Your task to perform on an android device: find which apps use the phone's location Image 0: 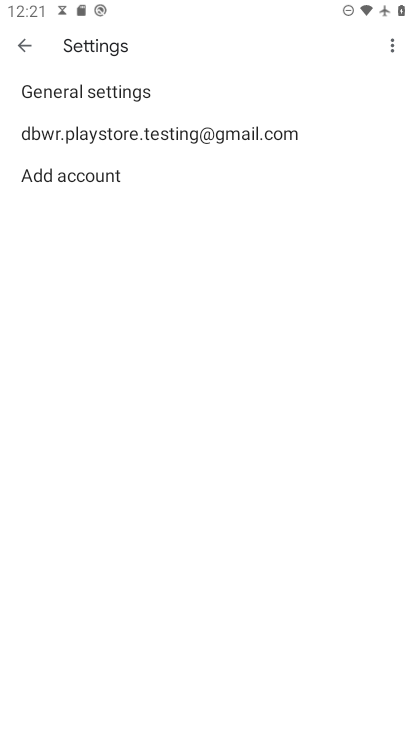
Step 0: click (20, 43)
Your task to perform on an android device: find which apps use the phone's location Image 1: 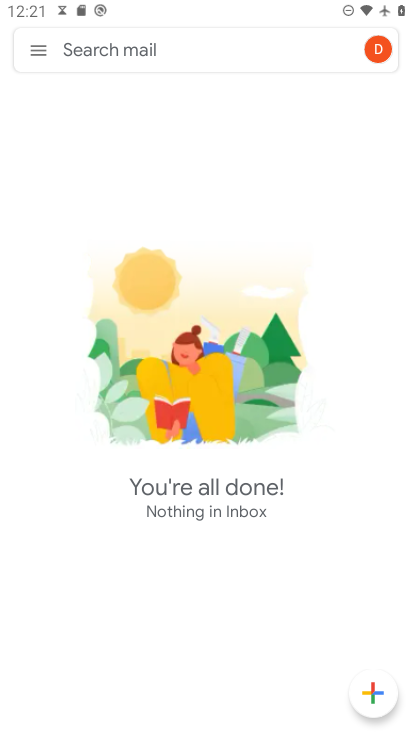
Step 1: press back button
Your task to perform on an android device: find which apps use the phone's location Image 2: 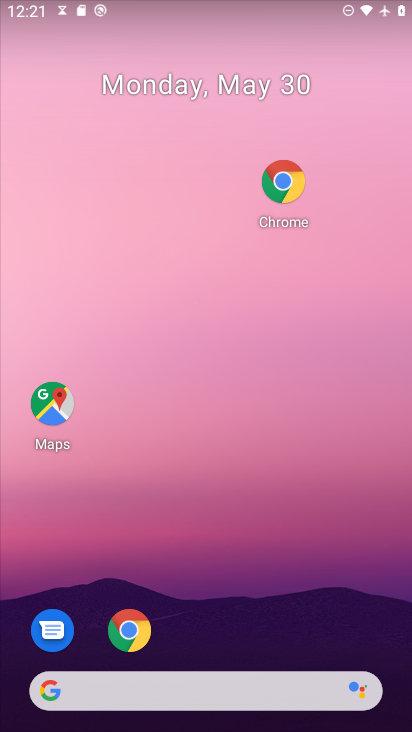
Step 2: drag from (243, 680) to (194, 229)
Your task to perform on an android device: find which apps use the phone's location Image 3: 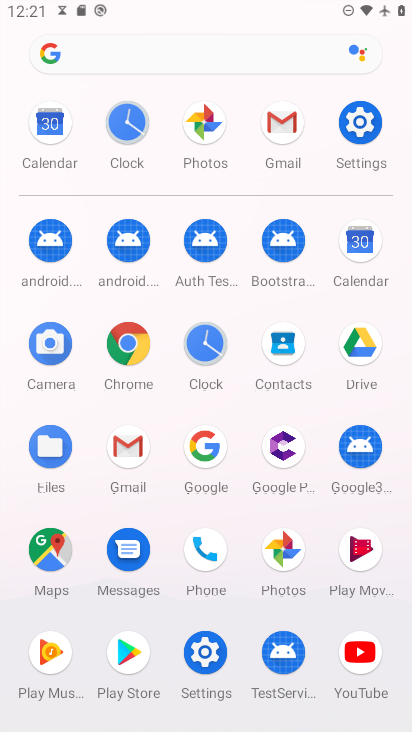
Step 3: click (203, 641)
Your task to perform on an android device: find which apps use the phone's location Image 4: 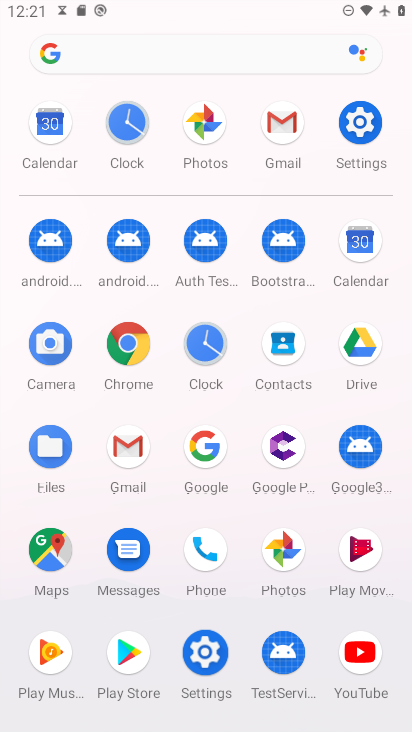
Step 4: click (205, 644)
Your task to perform on an android device: find which apps use the phone's location Image 5: 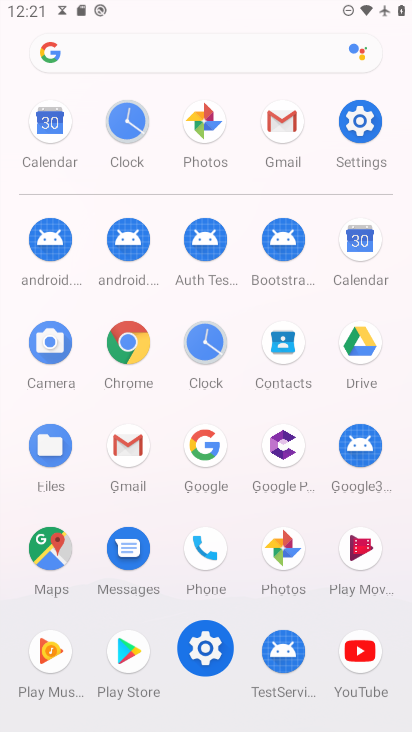
Step 5: click (208, 648)
Your task to perform on an android device: find which apps use the phone's location Image 6: 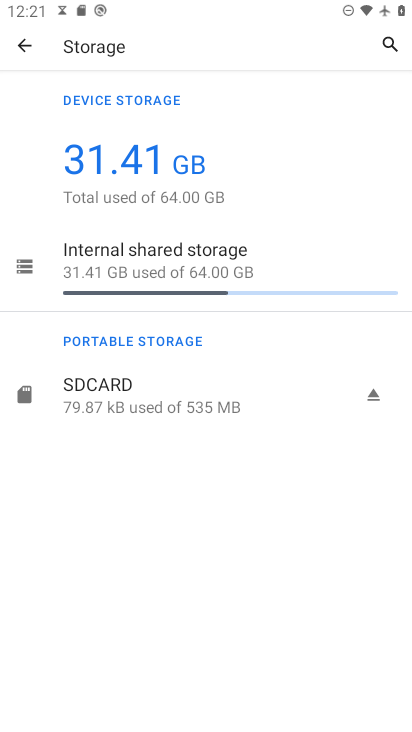
Step 6: click (28, 42)
Your task to perform on an android device: find which apps use the phone's location Image 7: 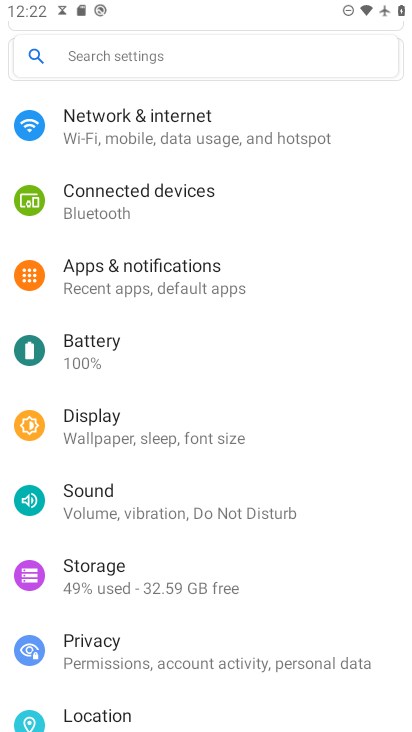
Step 7: drag from (161, 589) to (161, 254)
Your task to perform on an android device: find which apps use the phone's location Image 8: 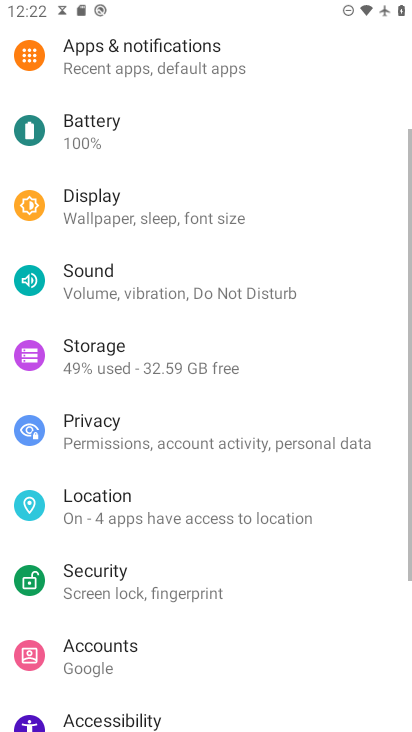
Step 8: drag from (233, 514) to (206, 242)
Your task to perform on an android device: find which apps use the phone's location Image 9: 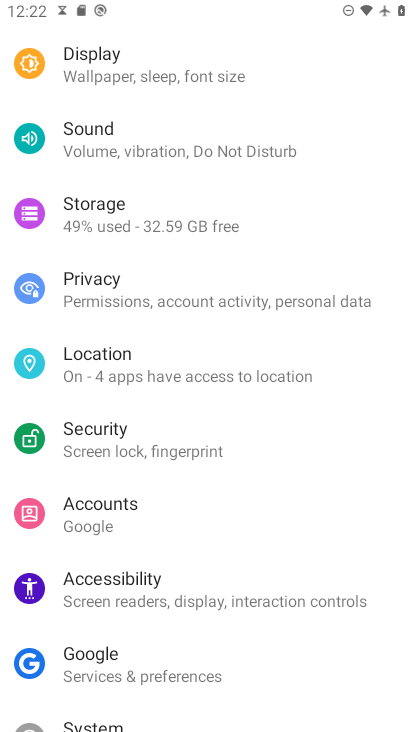
Step 9: click (140, 370)
Your task to perform on an android device: find which apps use the phone's location Image 10: 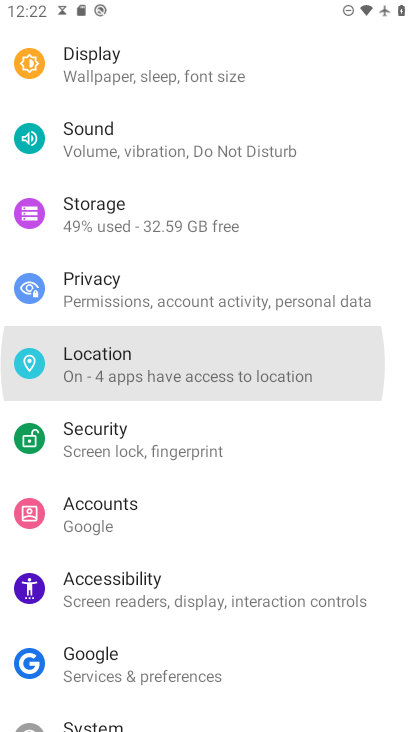
Step 10: click (139, 369)
Your task to perform on an android device: find which apps use the phone's location Image 11: 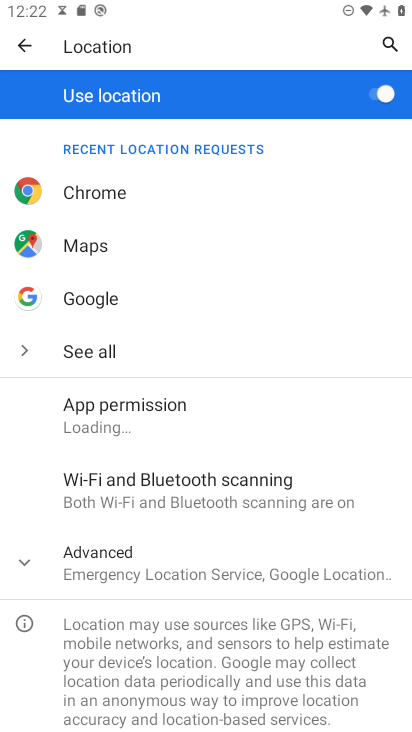
Step 11: click (106, 417)
Your task to perform on an android device: find which apps use the phone's location Image 12: 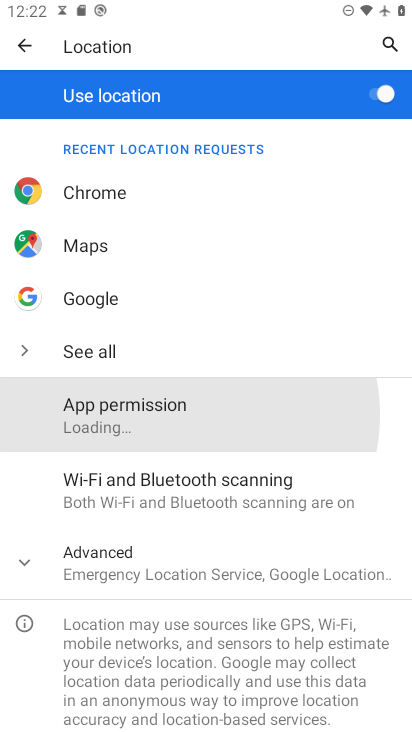
Step 12: click (105, 417)
Your task to perform on an android device: find which apps use the phone's location Image 13: 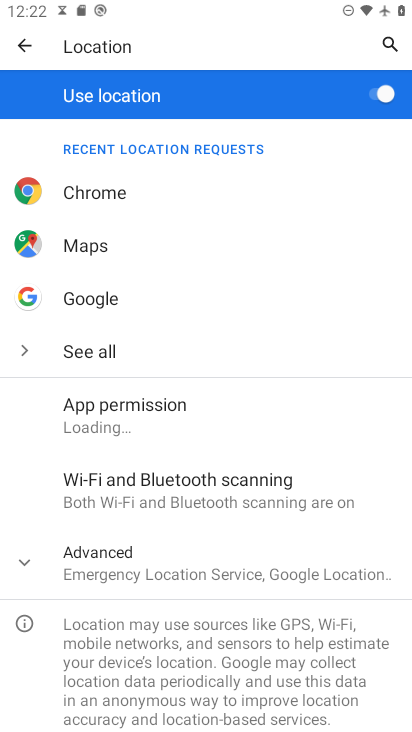
Step 13: click (104, 416)
Your task to perform on an android device: find which apps use the phone's location Image 14: 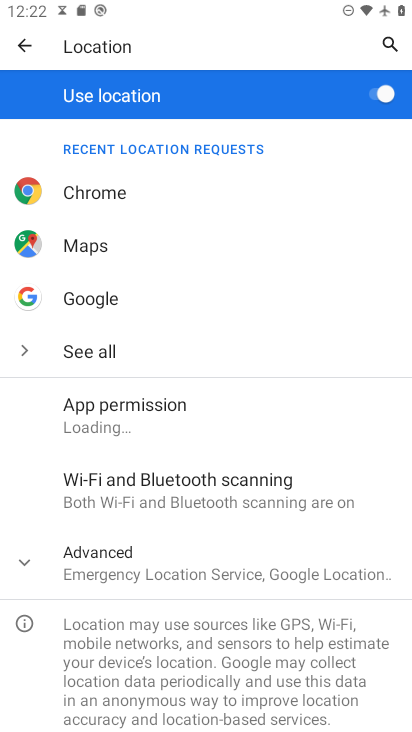
Step 14: click (104, 416)
Your task to perform on an android device: find which apps use the phone's location Image 15: 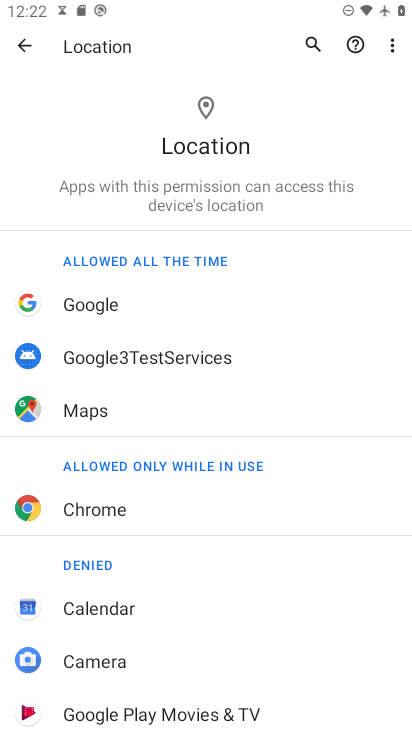
Step 15: task complete